Your task to perform on an android device: toggle wifi Image 0: 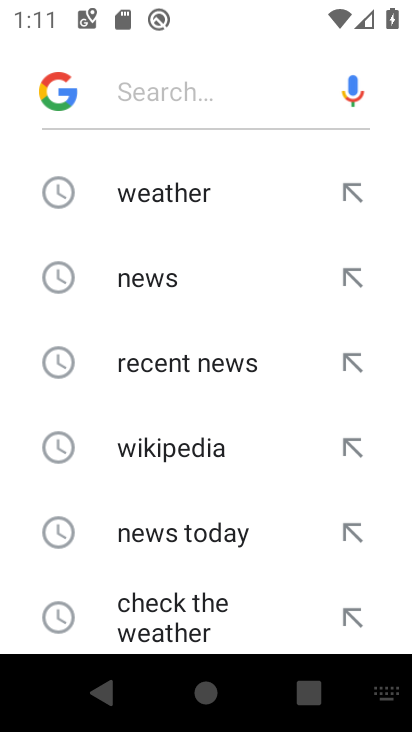
Step 0: drag from (225, 503) to (260, 131)
Your task to perform on an android device: toggle wifi Image 1: 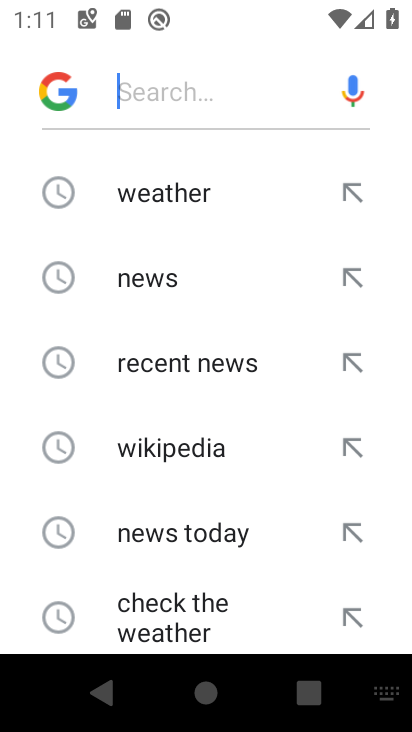
Step 1: press home button
Your task to perform on an android device: toggle wifi Image 2: 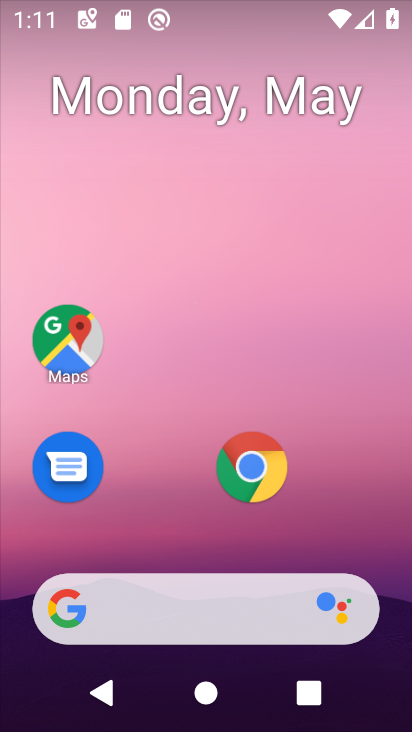
Step 2: drag from (226, 533) to (287, 112)
Your task to perform on an android device: toggle wifi Image 3: 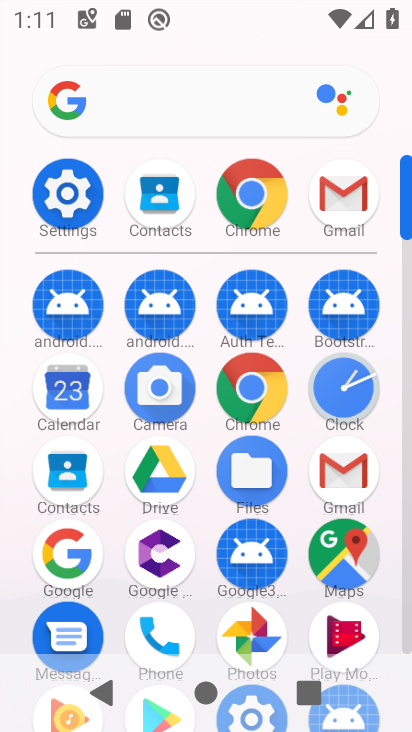
Step 3: click (68, 190)
Your task to perform on an android device: toggle wifi Image 4: 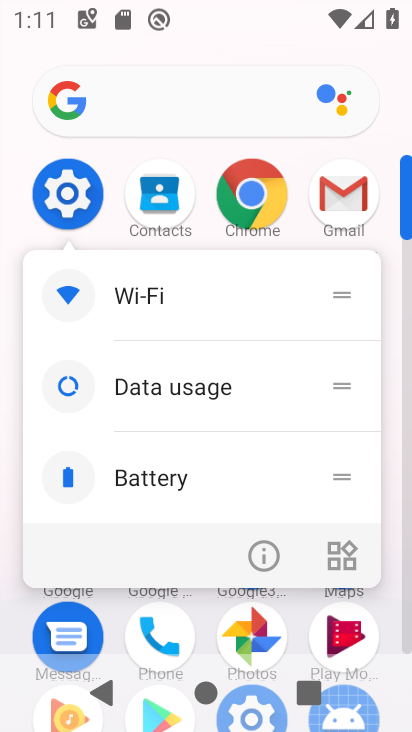
Step 4: click (260, 555)
Your task to perform on an android device: toggle wifi Image 5: 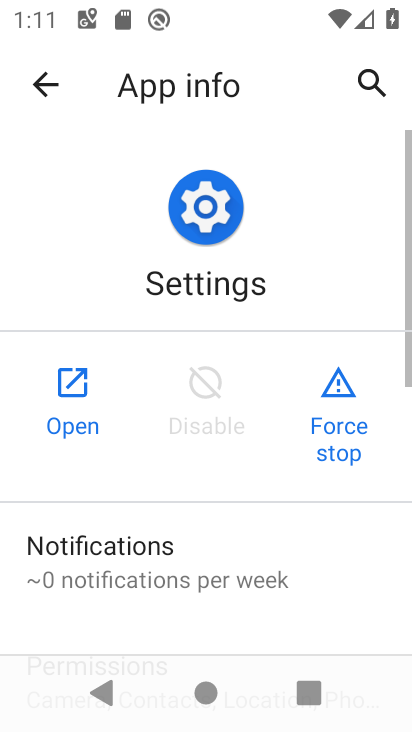
Step 5: click (79, 400)
Your task to perform on an android device: toggle wifi Image 6: 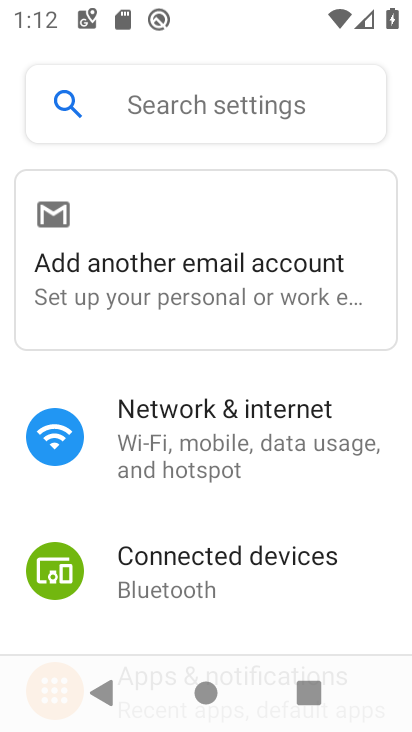
Step 6: drag from (246, 559) to (298, 101)
Your task to perform on an android device: toggle wifi Image 7: 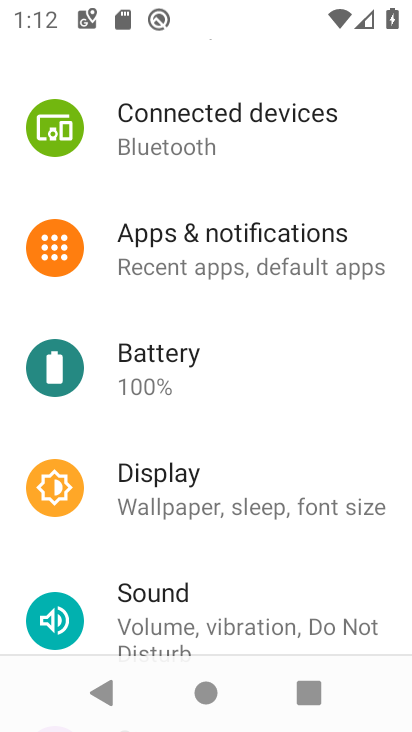
Step 7: drag from (257, 392) to (317, 176)
Your task to perform on an android device: toggle wifi Image 8: 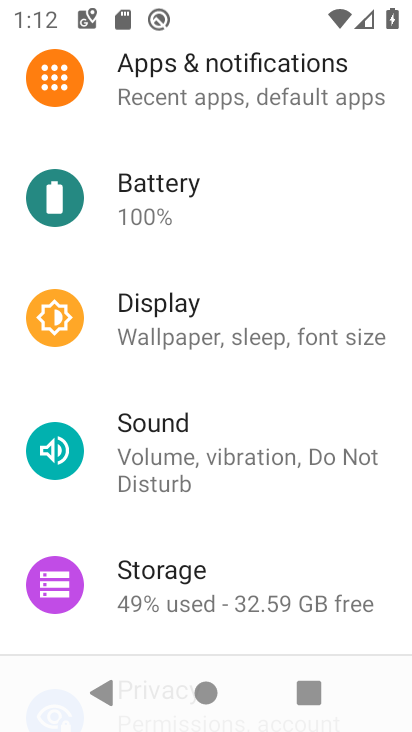
Step 8: drag from (249, 285) to (293, 720)
Your task to perform on an android device: toggle wifi Image 9: 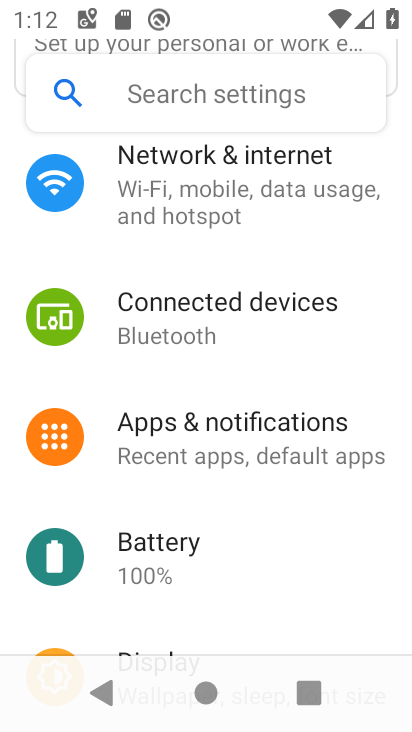
Step 9: drag from (272, 203) to (323, 731)
Your task to perform on an android device: toggle wifi Image 10: 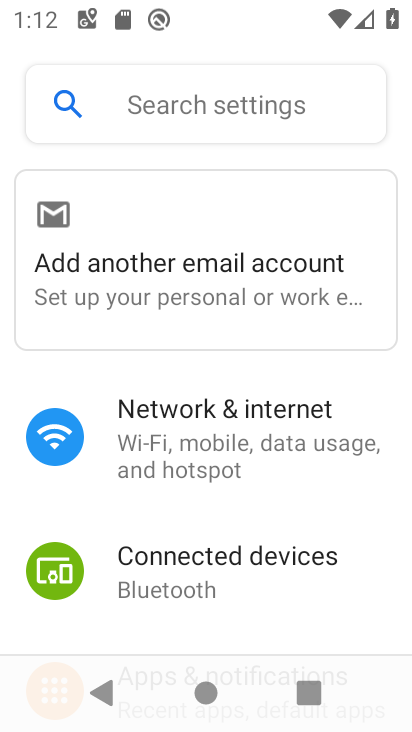
Step 10: click (222, 420)
Your task to perform on an android device: toggle wifi Image 11: 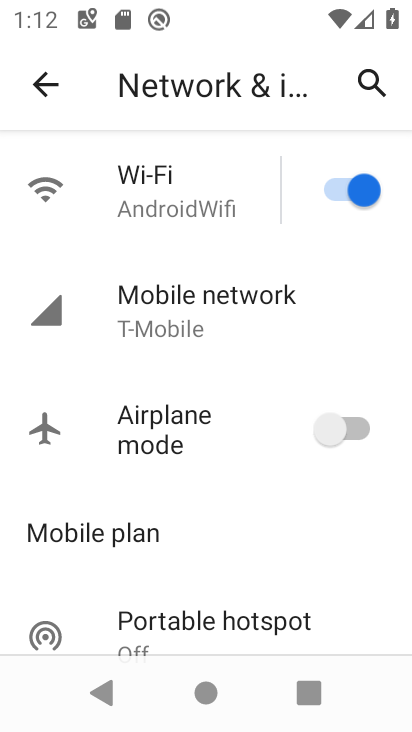
Step 11: click (207, 194)
Your task to perform on an android device: toggle wifi Image 12: 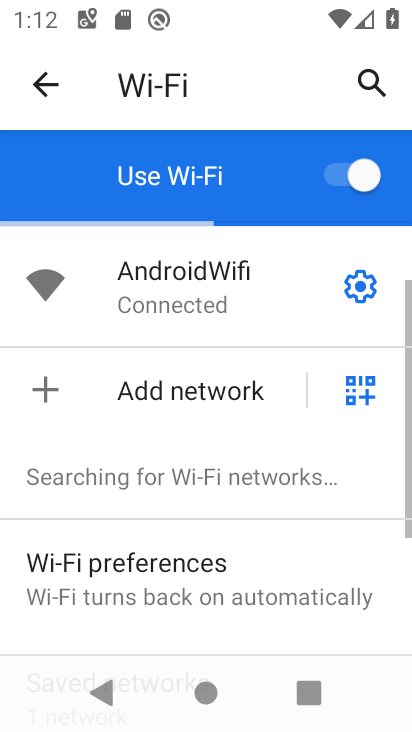
Step 12: click (354, 163)
Your task to perform on an android device: toggle wifi Image 13: 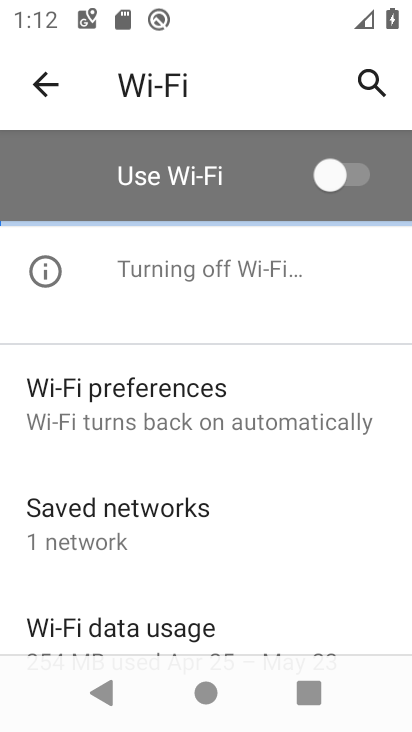
Step 13: task complete